Your task to perform on an android device: Open calendar and show me the fourth week of next month Image 0: 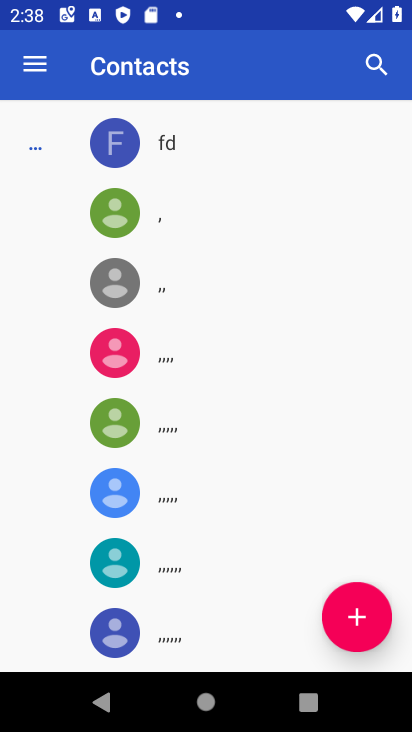
Step 0: press home button
Your task to perform on an android device: Open calendar and show me the fourth week of next month Image 1: 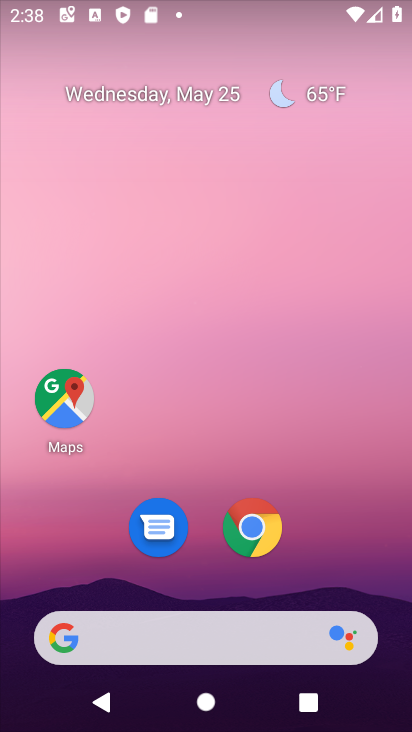
Step 1: drag from (185, 666) to (221, 6)
Your task to perform on an android device: Open calendar and show me the fourth week of next month Image 2: 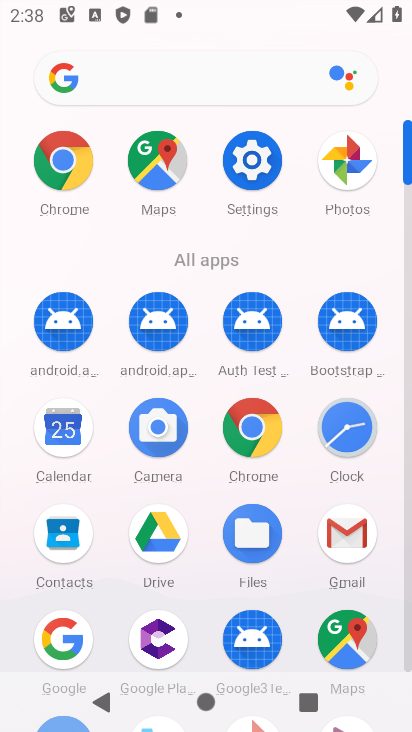
Step 2: click (71, 455)
Your task to perform on an android device: Open calendar and show me the fourth week of next month Image 3: 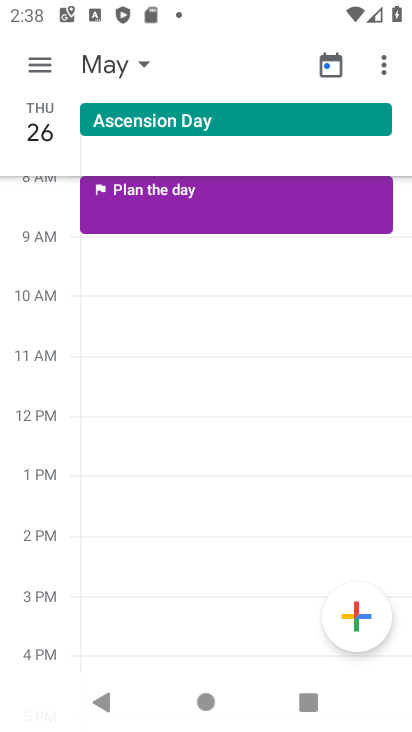
Step 3: click (136, 61)
Your task to perform on an android device: Open calendar and show me the fourth week of next month Image 4: 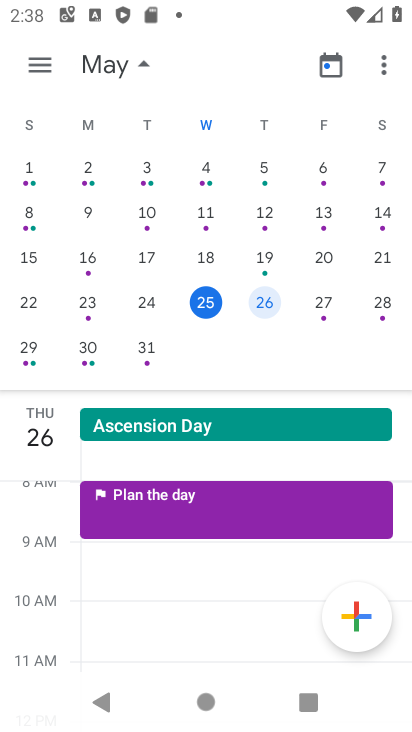
Step 4: drag from (377, 303) to (23, 257)
Your task to perform on an android device: Open calendar and show me the fourth week of next month Image 5: 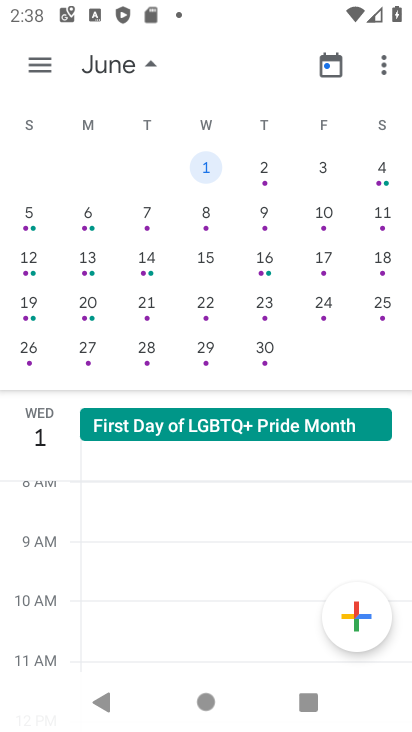
Step 5: click (273, 306)
Your task to perform on an android device: Open calendar and show me the fourth week of next month Image 6: 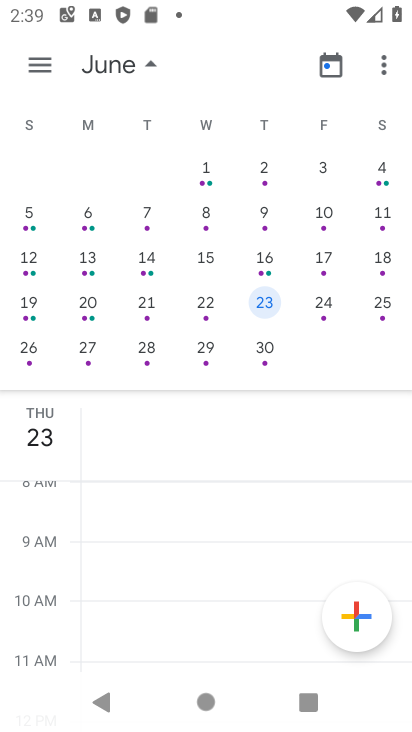
Step 6: task complete